Your task to perform on an android device: Show me recent news Image 0: 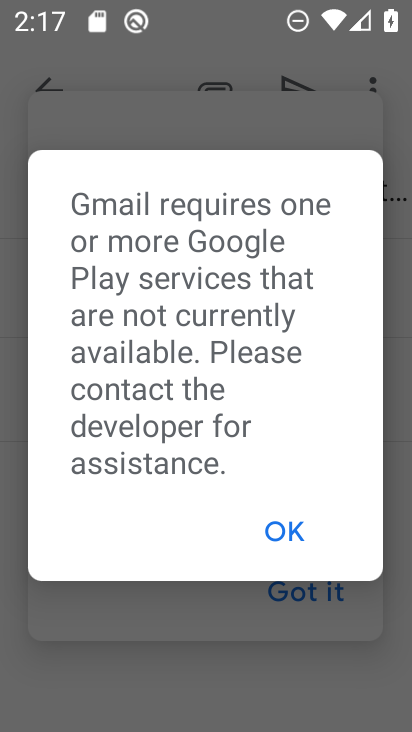
Step 0: press home button
Your task to perform on an android device: Show me recent news Image 1: 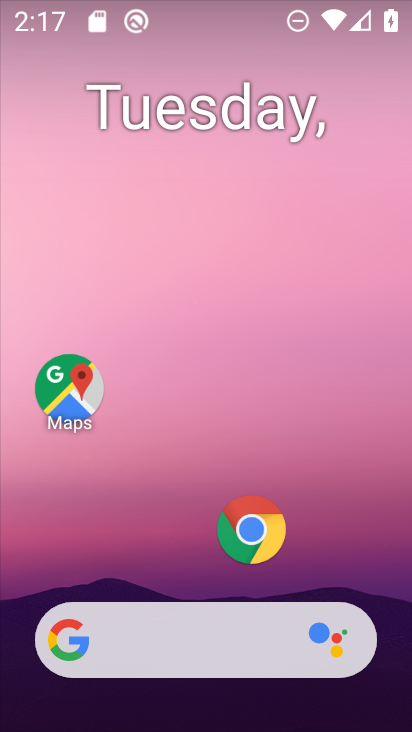
Step 1: click (169, 637)
Your task to perform on an android device: Show me recent news Image 2: 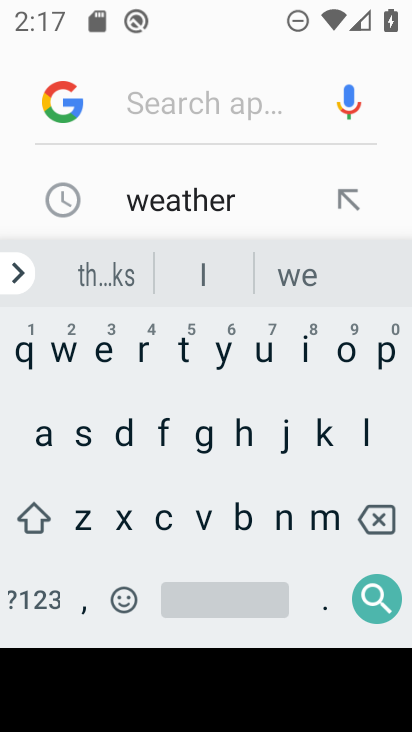
Step 2: click (140, 343)
Your task to perform on an android device: Show me recent news Image 3: 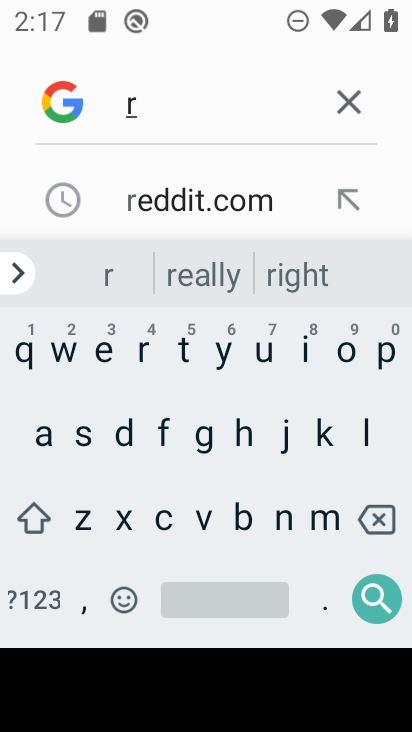
Step 3: click (94, 347)
Your task to perform on an android device: Show me recent news Image 4: 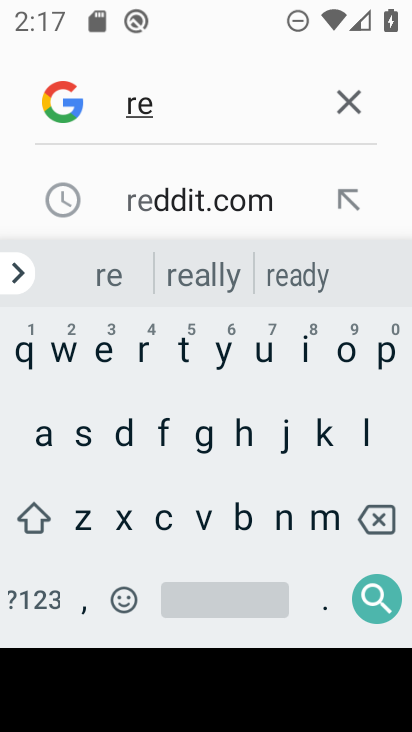
Step 4: click (166, 510)
Your task to perform on an android device: Show me recent news Image 5: 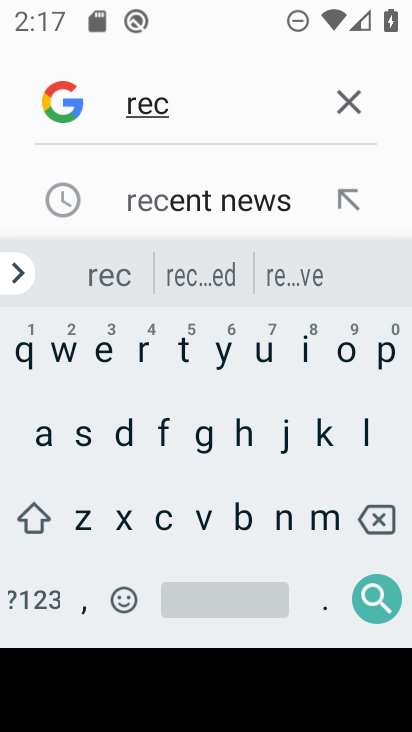
Step 5: click (208, 203)
Your task to perform on an android device: Show me recent news Image 6: 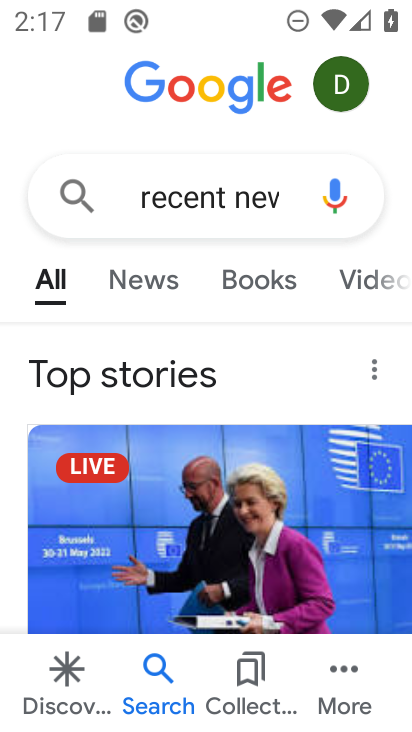
Step 6: task complete